Your task to perform on an android device: What's the weather today? Image 0: 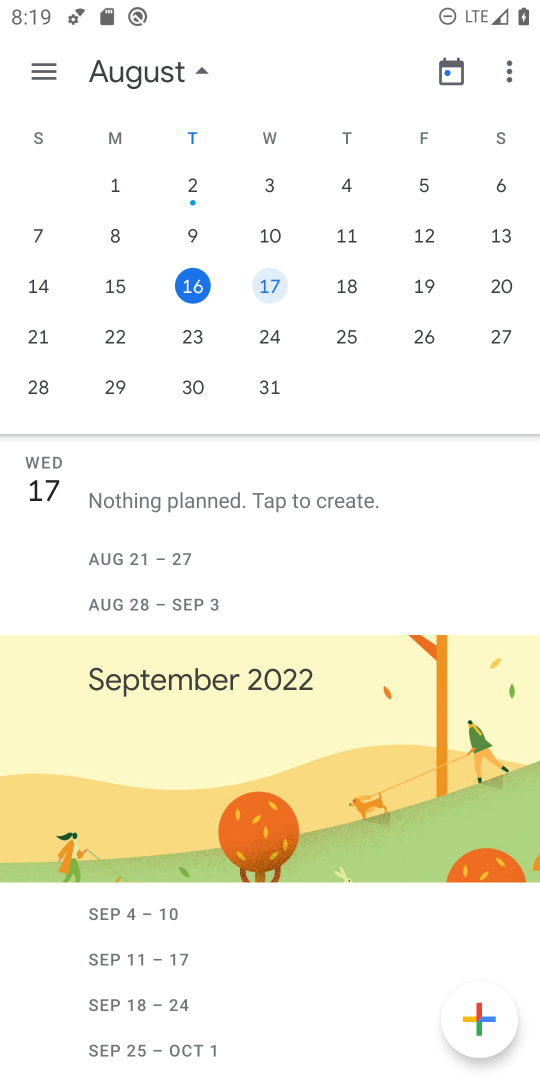
Step 0: press home button
Your task to perform on an android device: What's the weather today? Image 1: 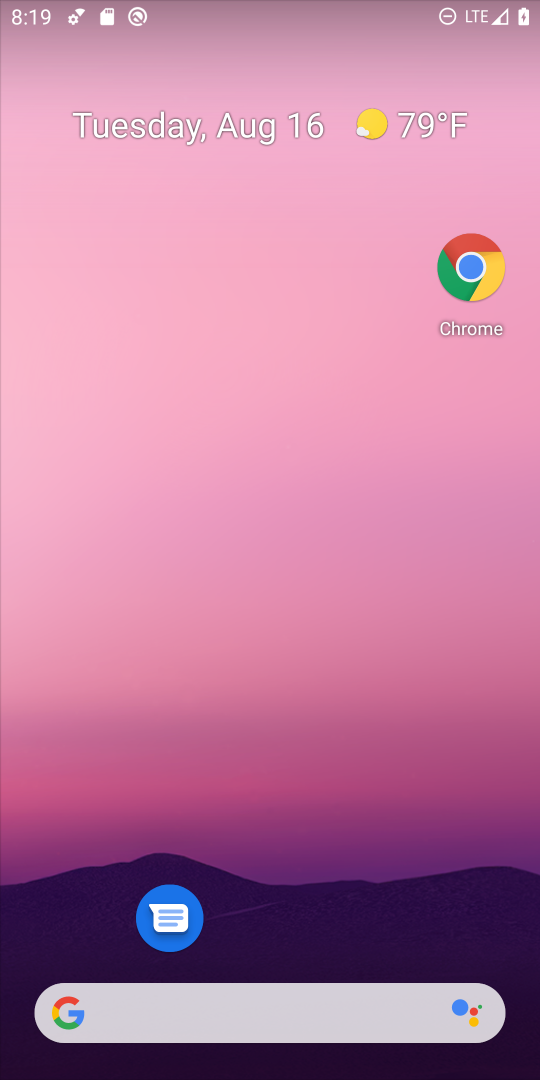
Step 1: drag from (331, 953) to (298, 541)
Your task to perform on an android device: What's the weather today? Image 2: 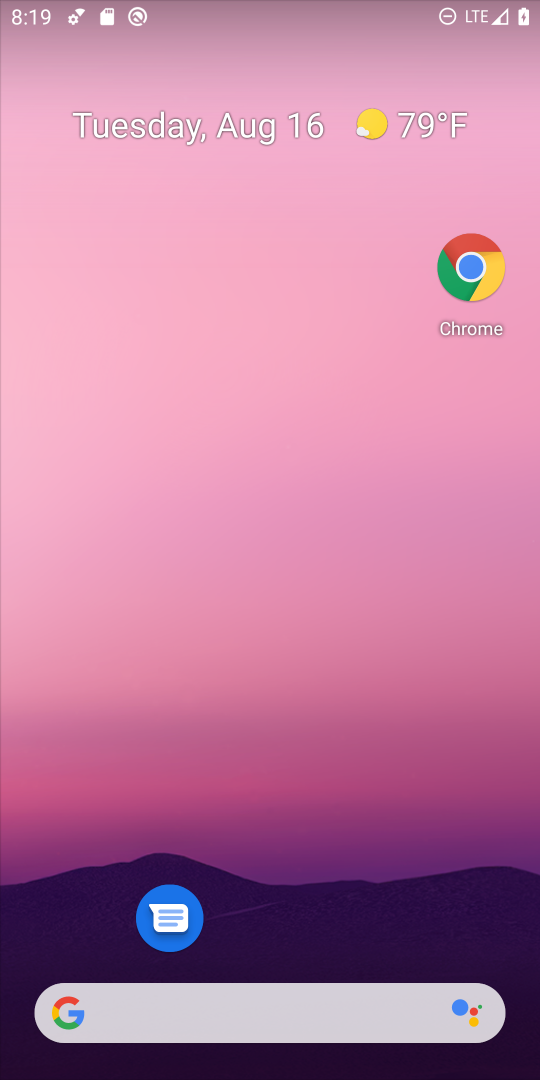
Step 2: drag from (362, 927) to (365, 14)
Your task to perform on an android device: What's the weather today? Image 3: 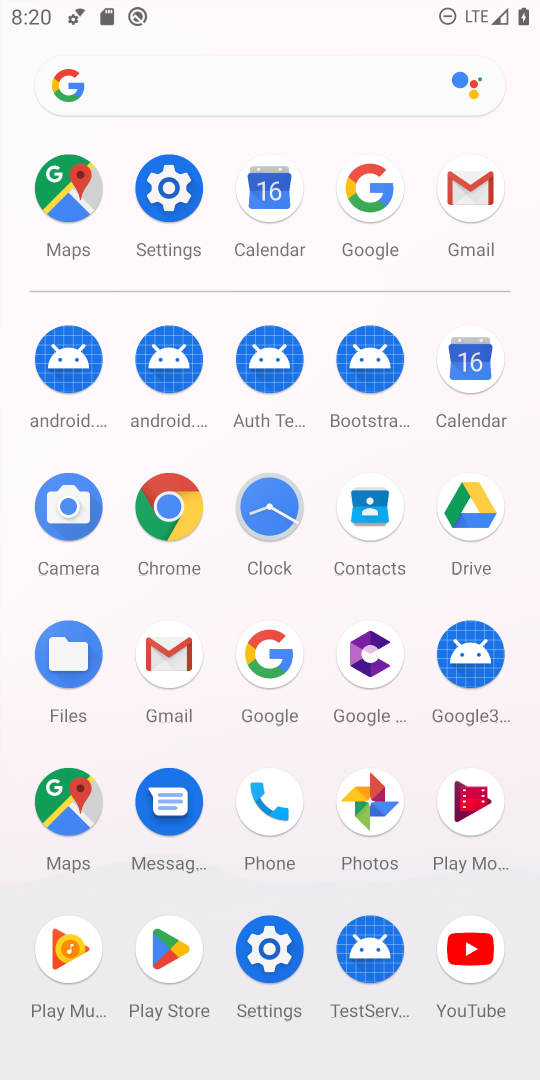
Step 3: click (263, 698)
Your task to perform on an android device: What's the weather today? Image 4: 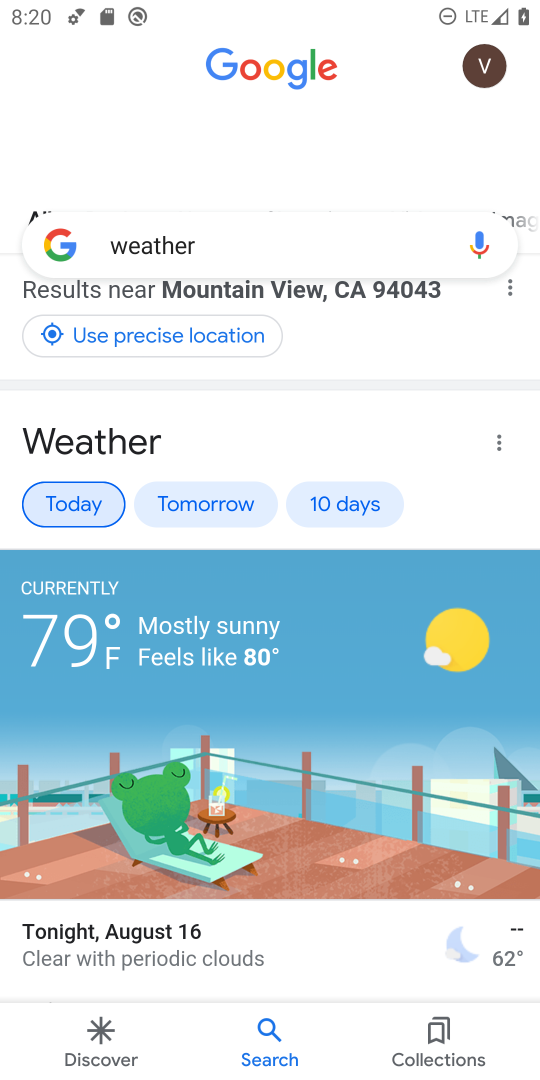
Step 4: task complete